Your task to perform on an android device: What is the recent news? Image 0: 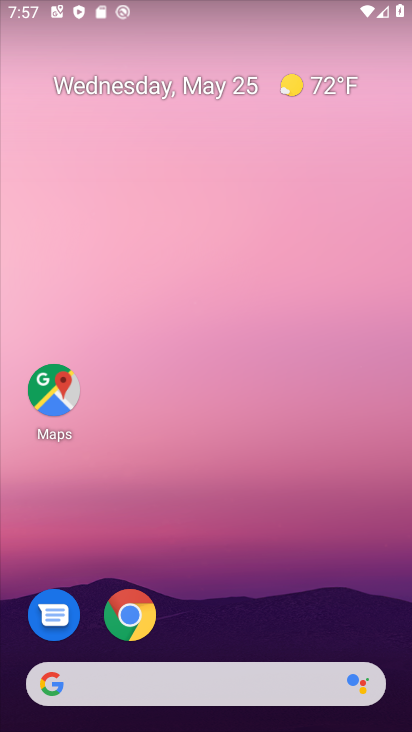
Step 0: click (227, 691)
Your task to perform on an android device: What is the recent news? Image 1: 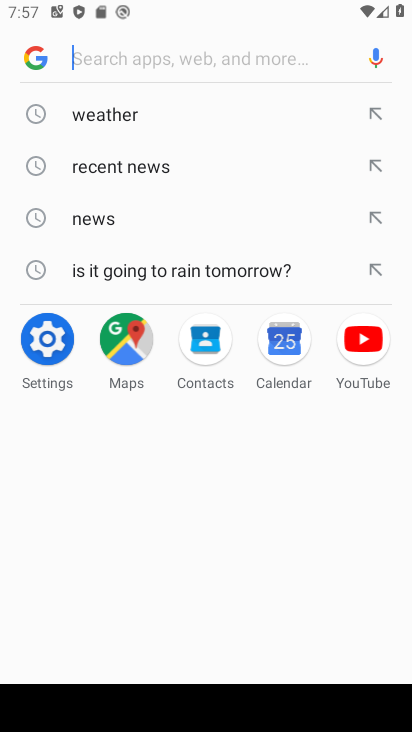
Step 1: click (78, 169)
Your task to perform on an android device: What is the recent news? Image 2: 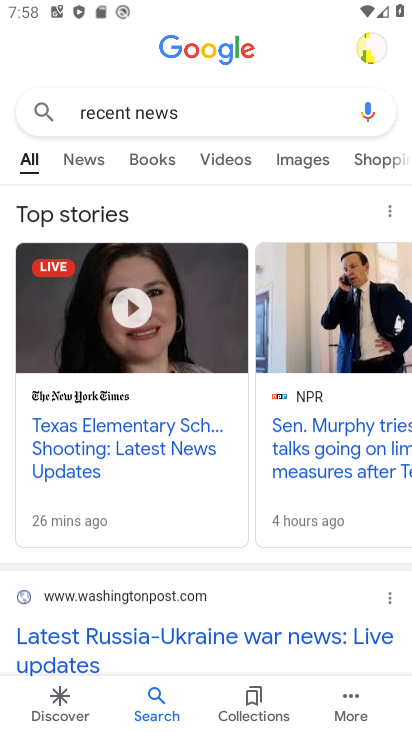
Step 2: click (151, 426)
Your task to perform on an android device: What is the recent news? Image 3: 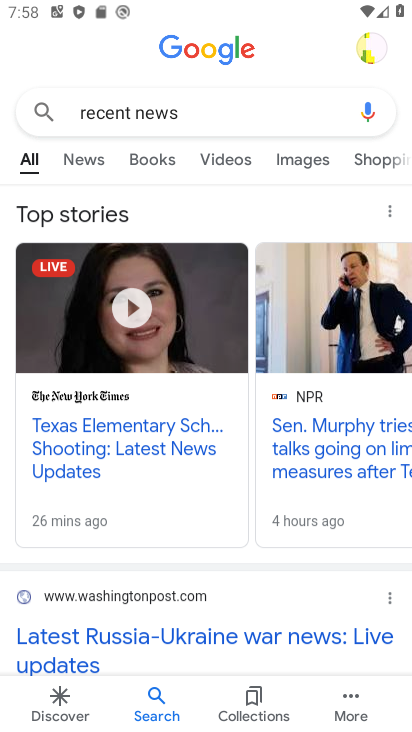
Step 3: task complete